Your task to perform on an android device: turn on data saver in the chrome app Image 0: 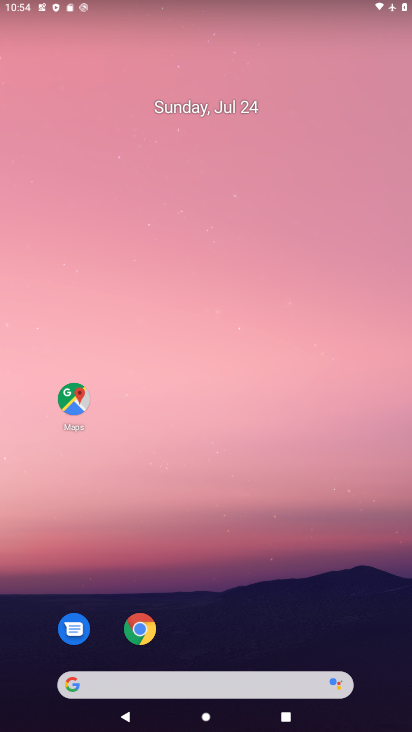
Step 0: click (153, 624)
Your task to perform on an android device: turn on data saver in the chrome app Image 1: 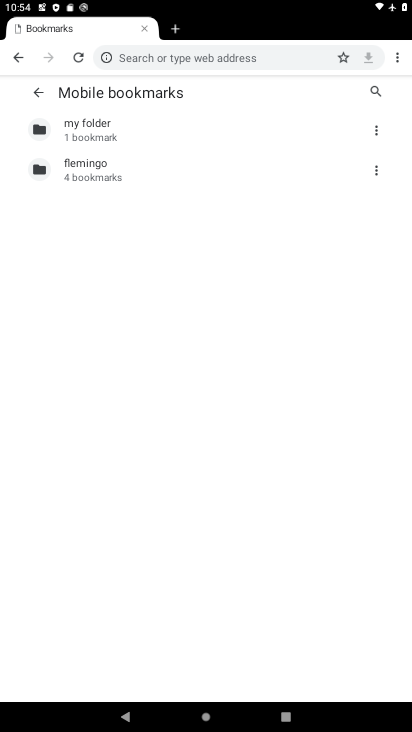
Step 1: click (403, 56)
Your task to perform on an android device: turn on data saver in the chrome app Image 2: 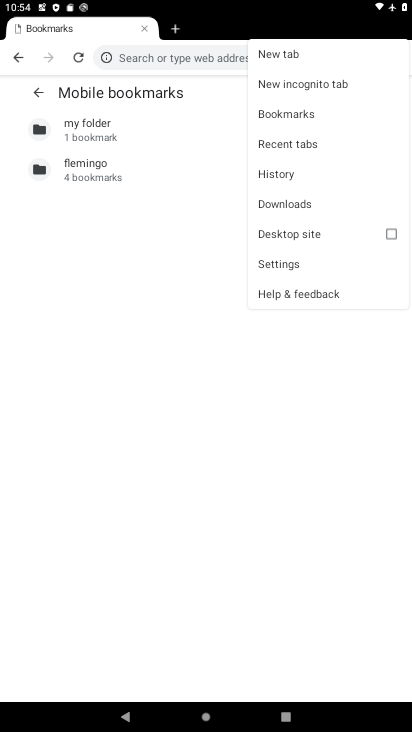
Step 2: click (300, 267)
Your task to perform on an android device: turn on data saver in the chrome app Image 3: 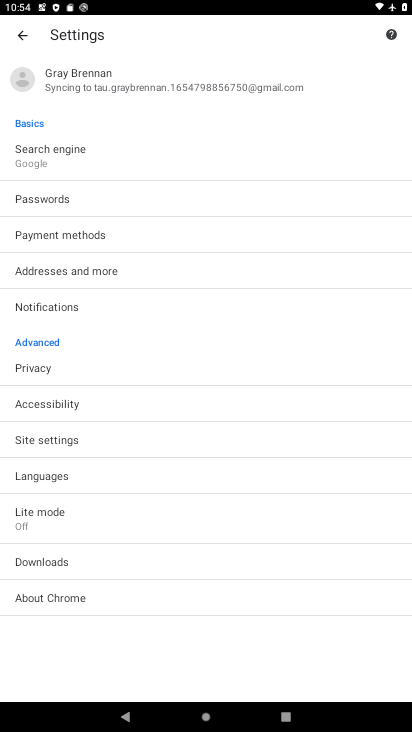
Step 3: click (113, 518)
Your task to perform on an android device: turn on data saver in the chrome app Image 4: 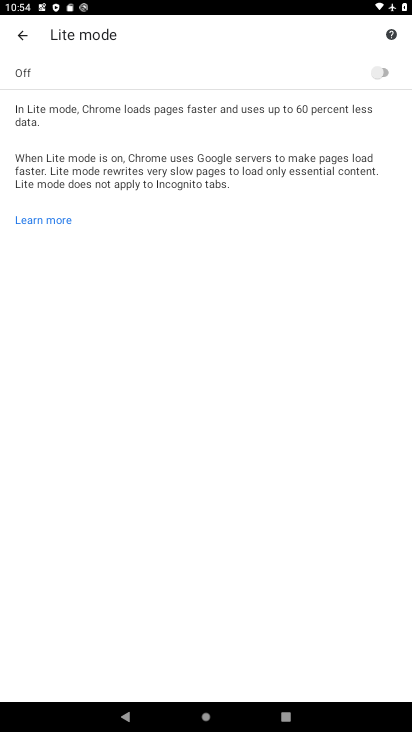
Step 4: click (391, 78)
Your task to perform on an android device: turn on data saver in the chrome app Image 5: 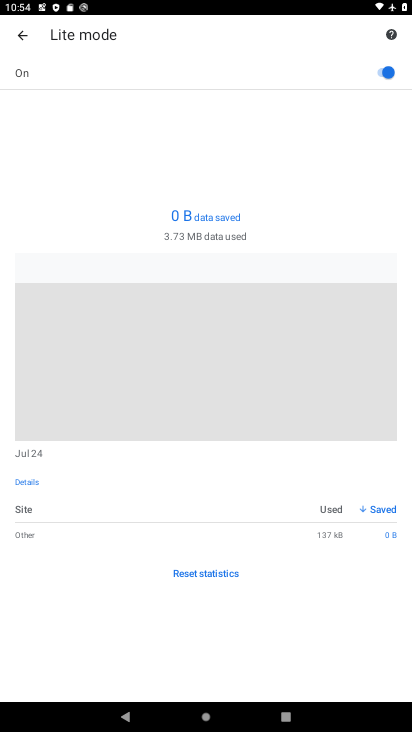
Step 5: task complete